Your task to perform on an android device: clear all cookies in the chrome app Image 0: 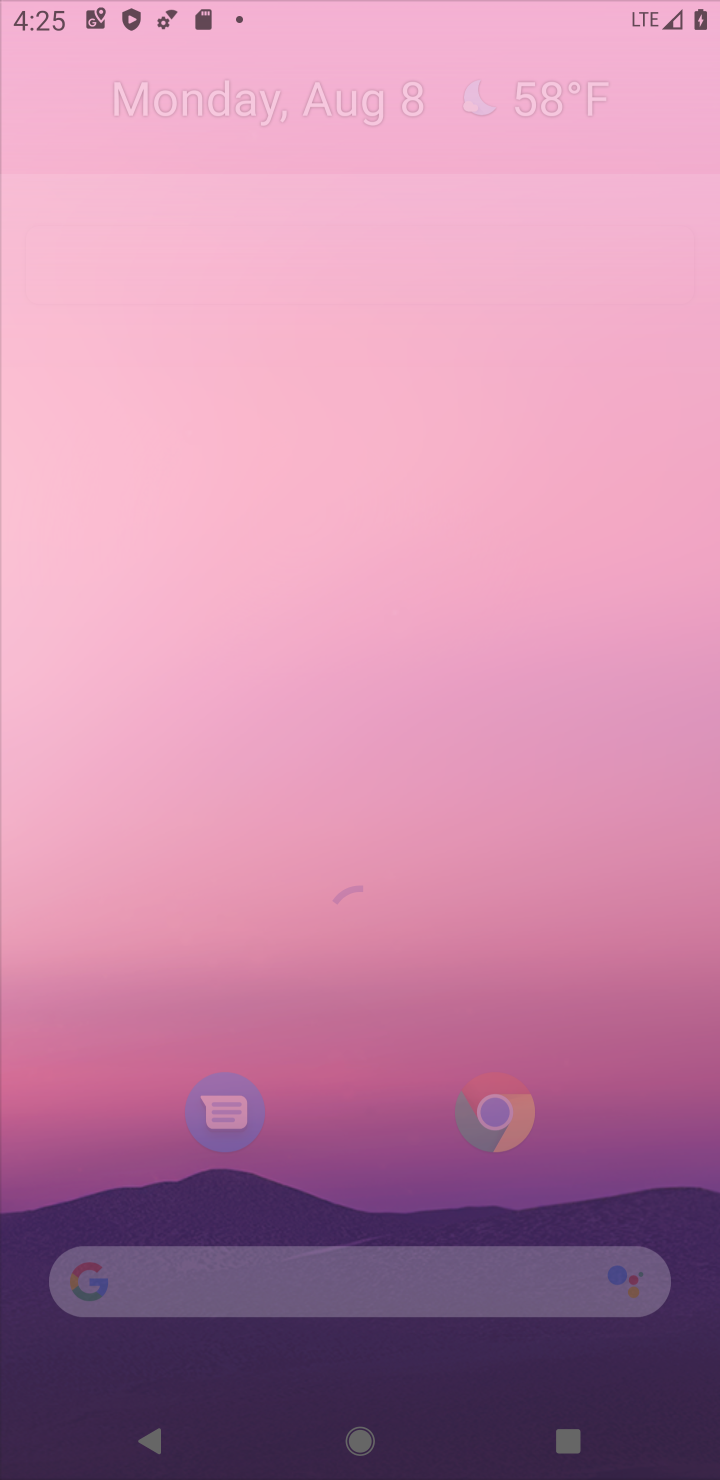
Step 0: press home button
Your task to perform on an android device: clear all cookies in the chrome app Image 1: 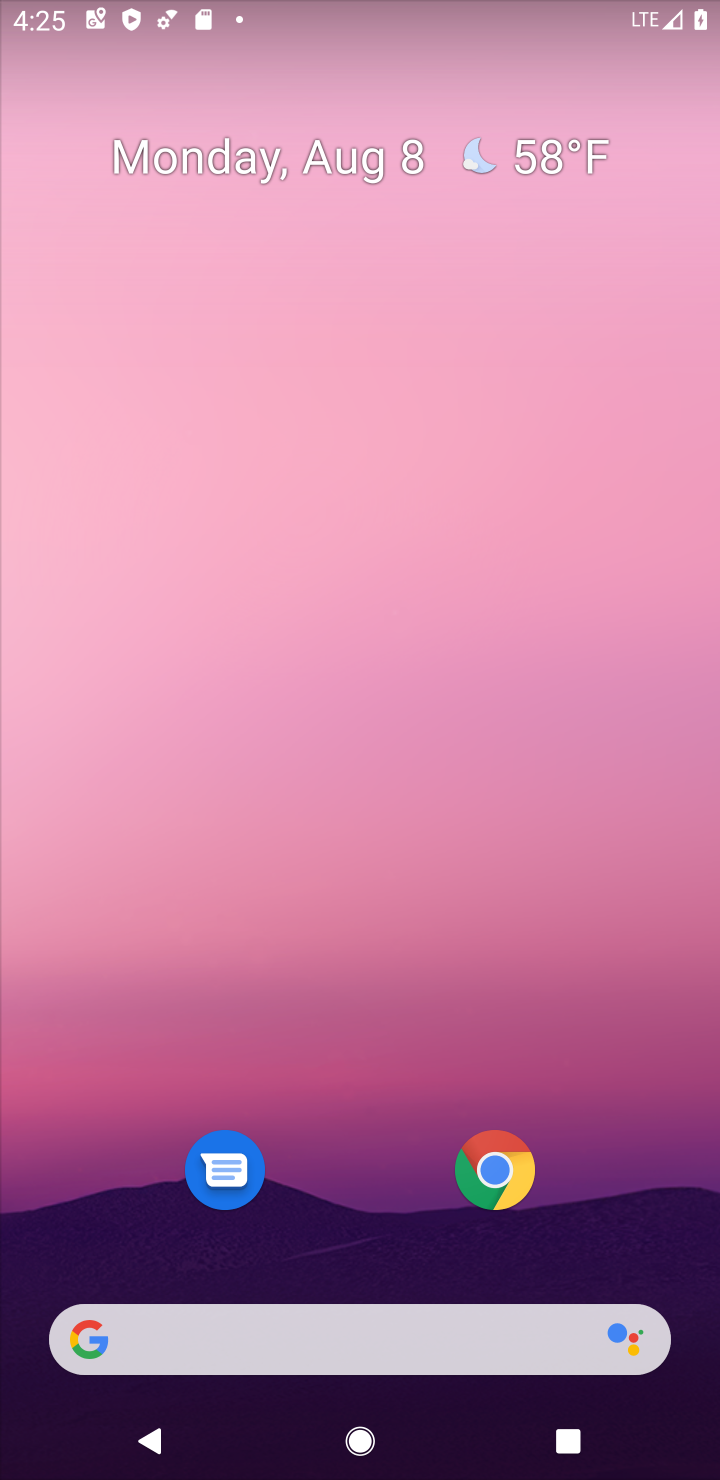
Step 1: click (481, 1174)
Your task to perform on an android device: clear all cookies in the chrome app Image 2: 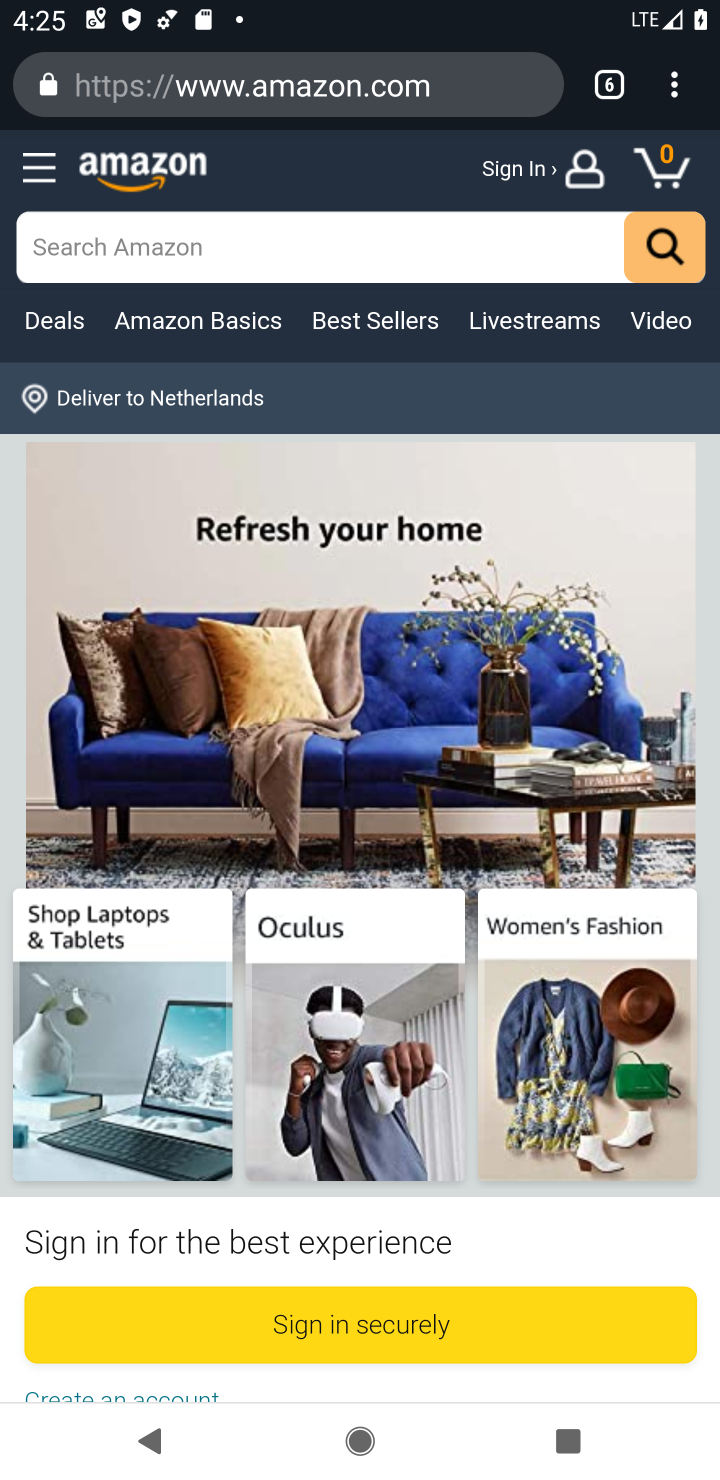
Step 2: click (673, 89)
Your task to perform on an android device: clear all cookies in the chrome app Image 3: 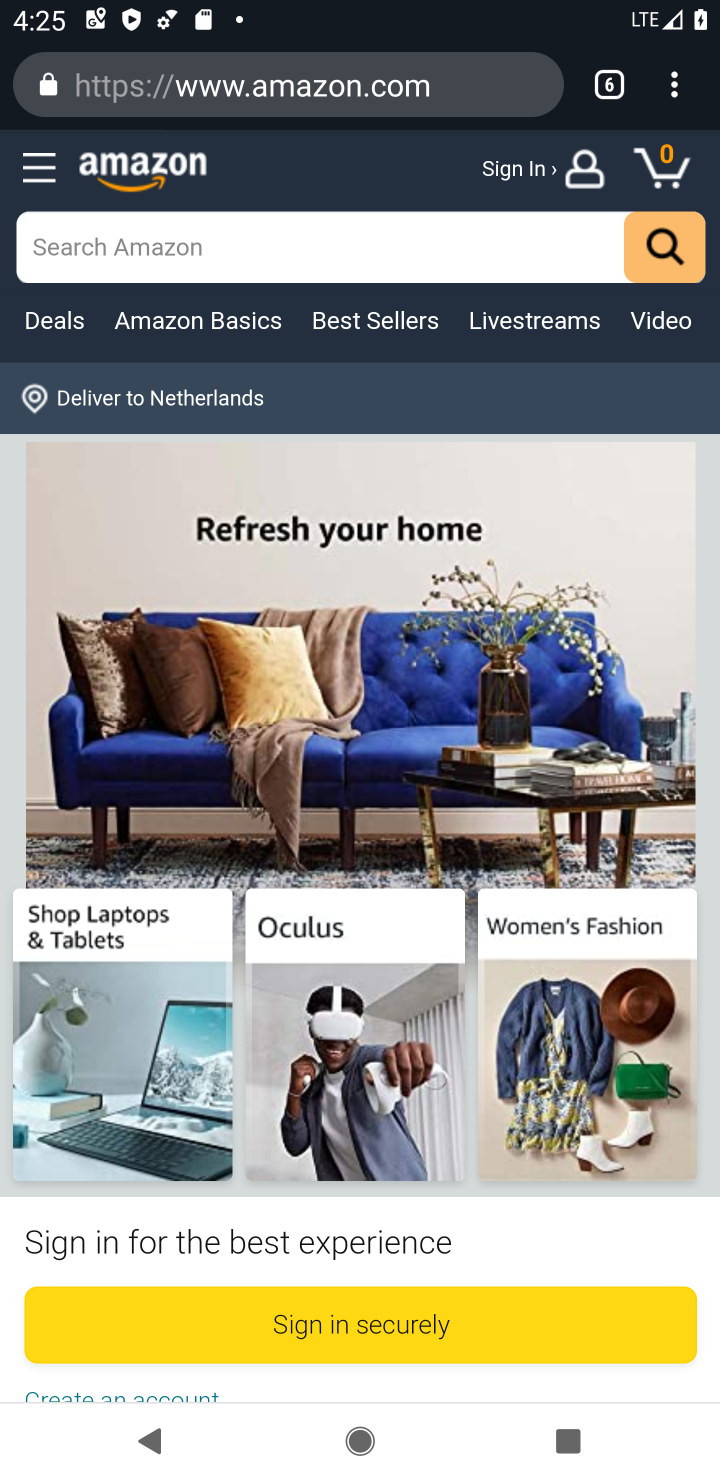
Step 3: click (676, 91)
Your task to perform on an android device: clear all cookies in the chrome app Image 4: 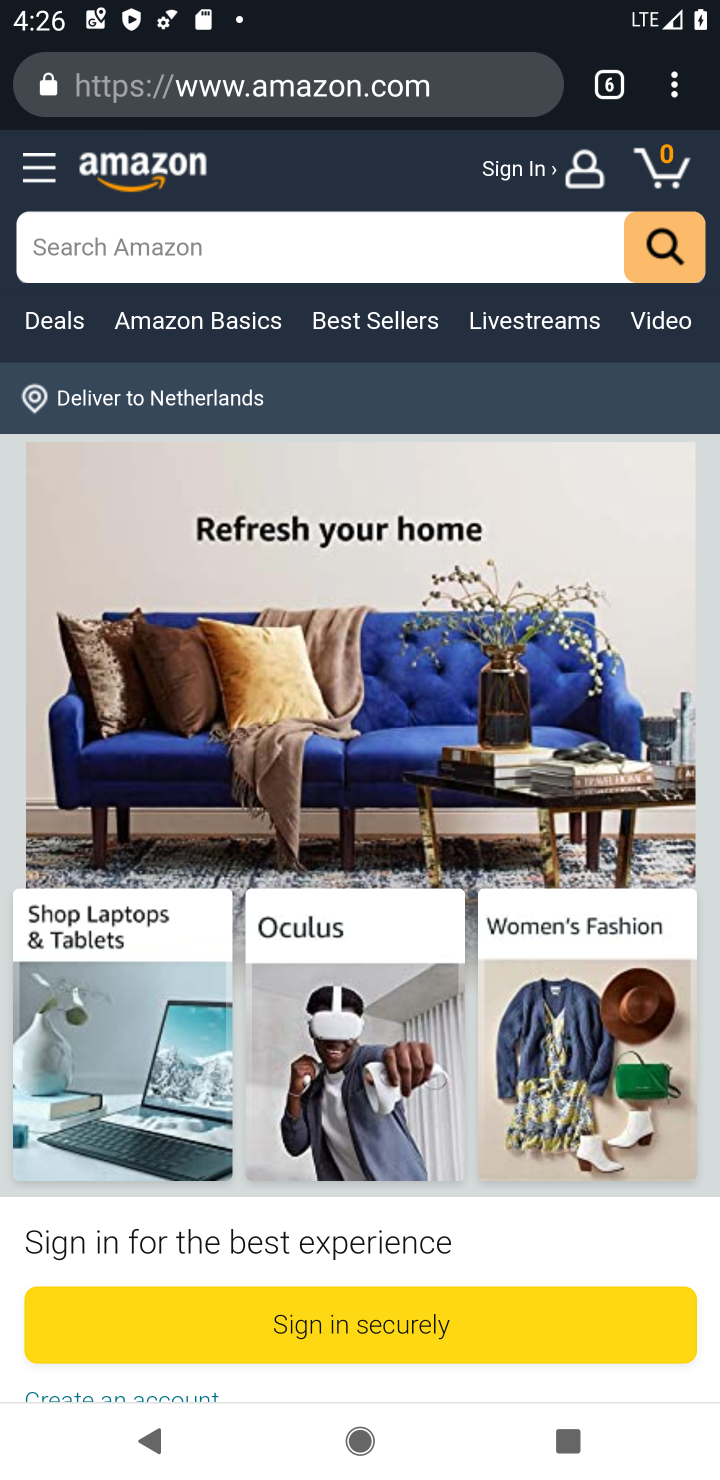
Step 4: click (676, 91)
Your task to perform on an android device: clear all cookies in the chrome app Image 5: 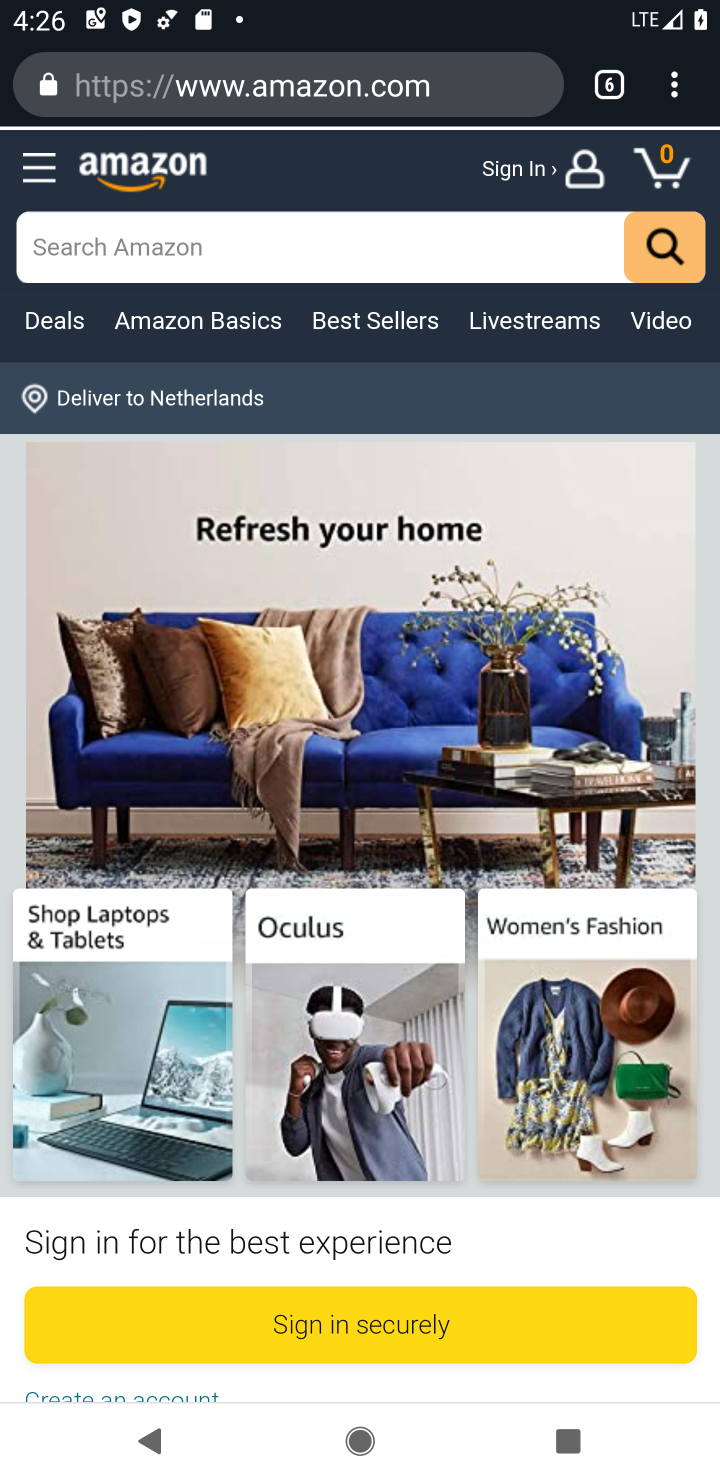
Step 5: drag from (676, 91) to (434, 482)
Your task to perform on an android device: clear all cookies in the chrome app Image 6: 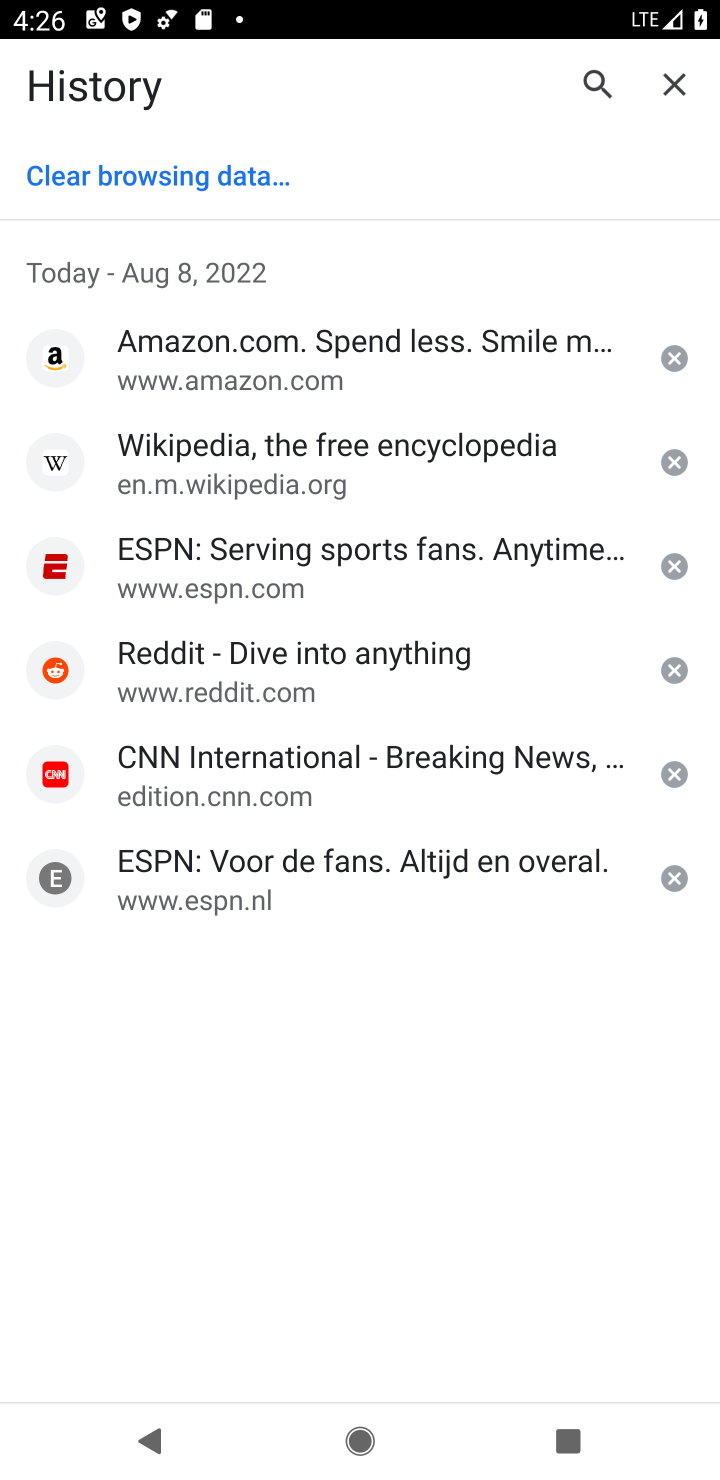
Step 6: click (253, 172)
Your task to perform on an android device: clear all cookies in the chrome app Image 7: 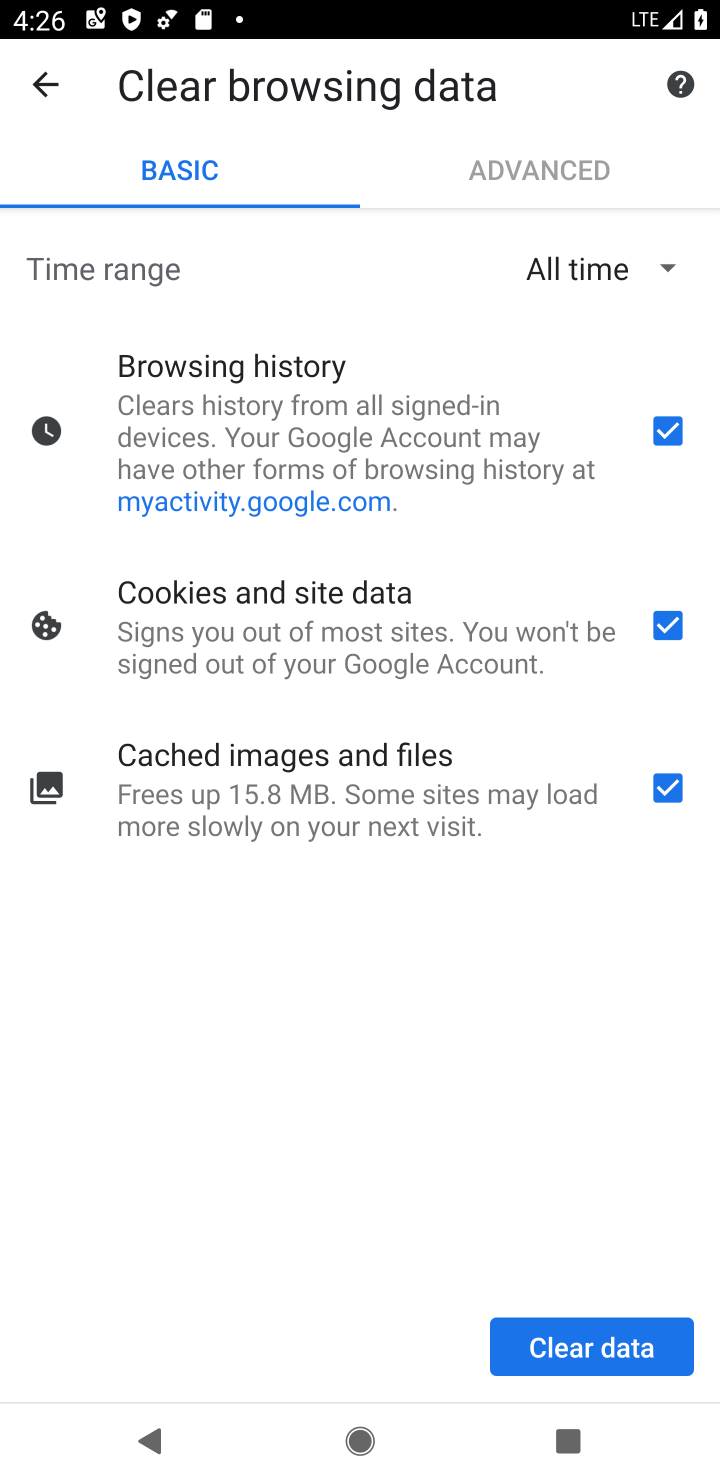
Step 7: click (586, 1347)
Your task to perform on an android device: clear all cookies in the chrome app Image 8: 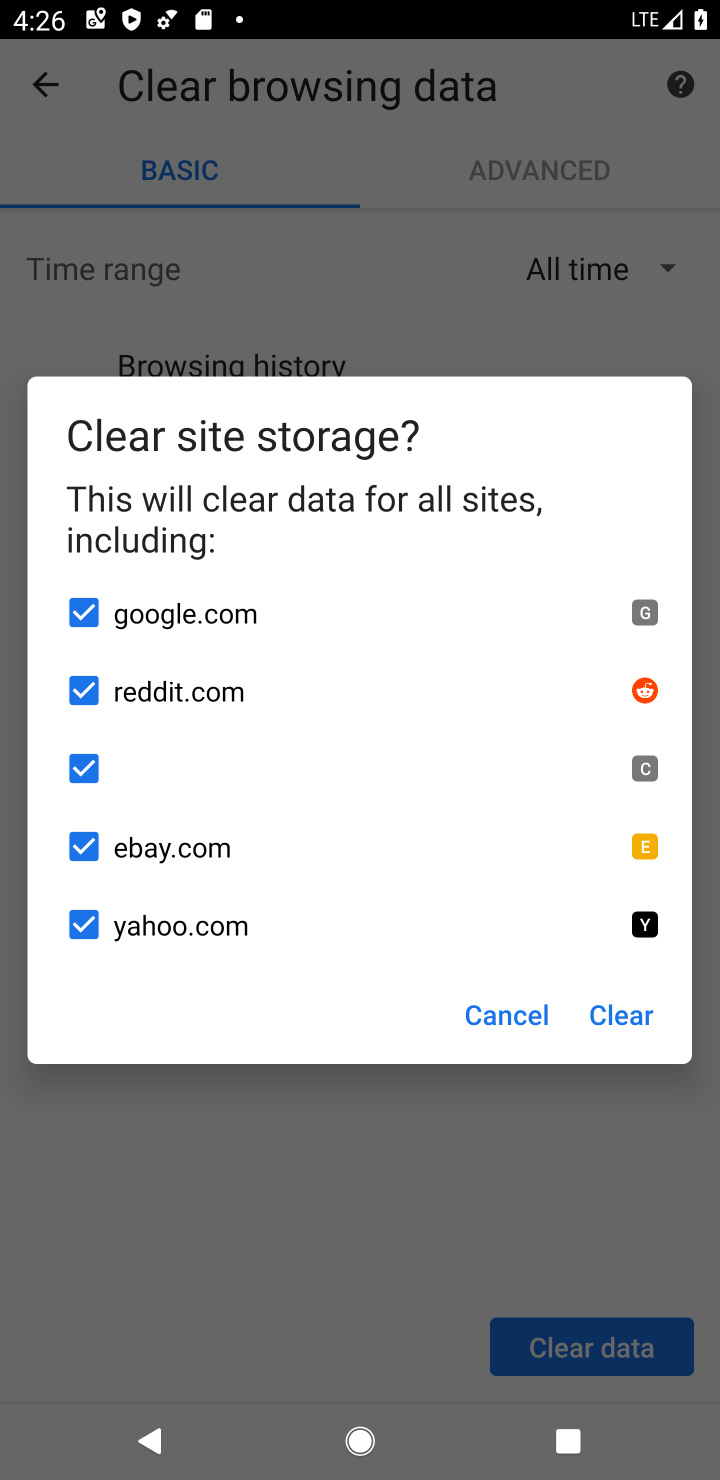
Step 8: click (604, 1022)
Your task to perform on an android device: clear all cookies in the chrome app Image 9: 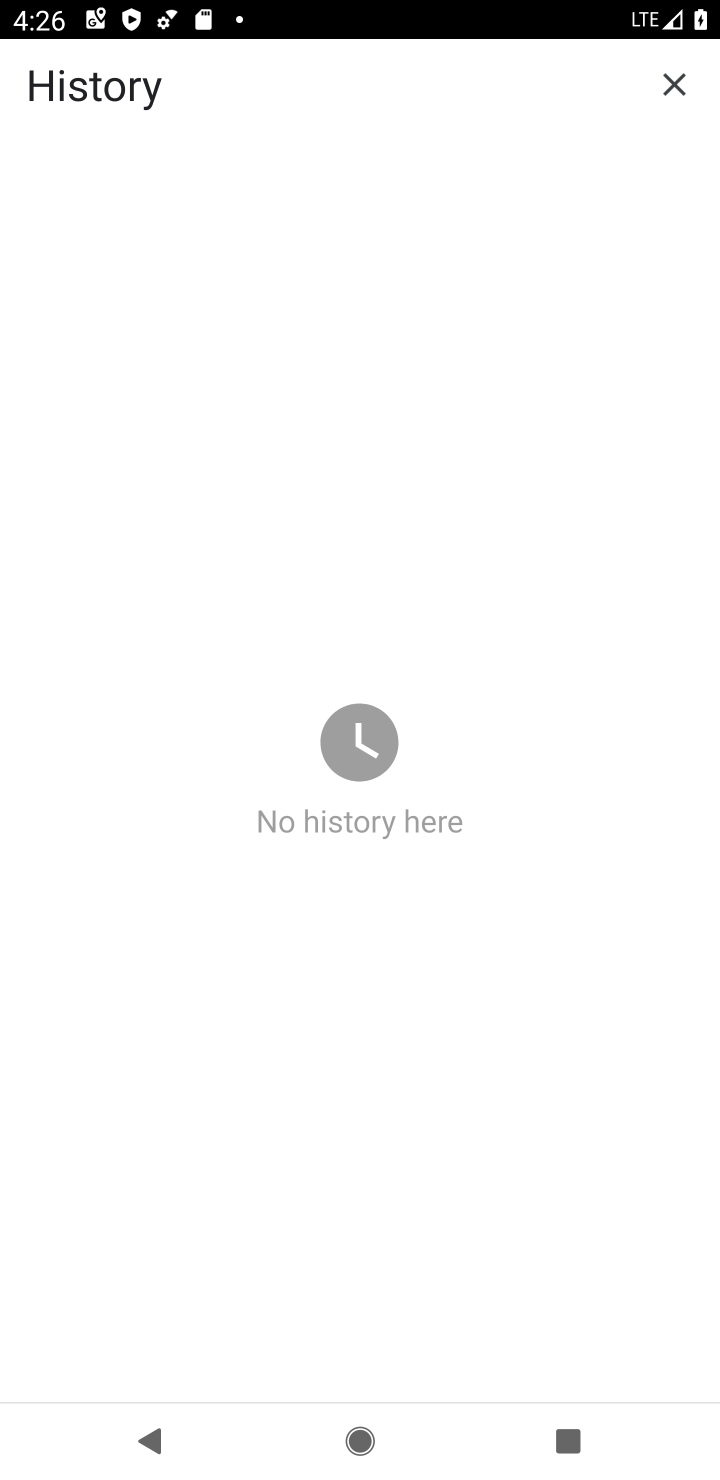
Step 9: task complete